Your task to perform on an android device: Open Google Chrome and open the bookmarks view Image 0: 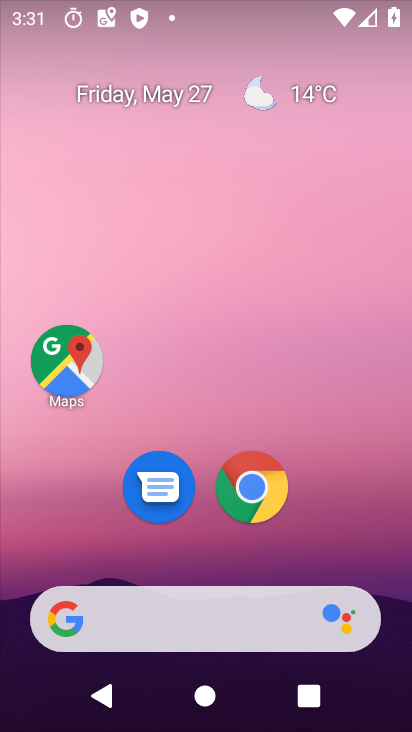
Step 0: click (255, 491)
Your task to perform on an android device: Open Google Chrome and open the bookmarks view Image 1: 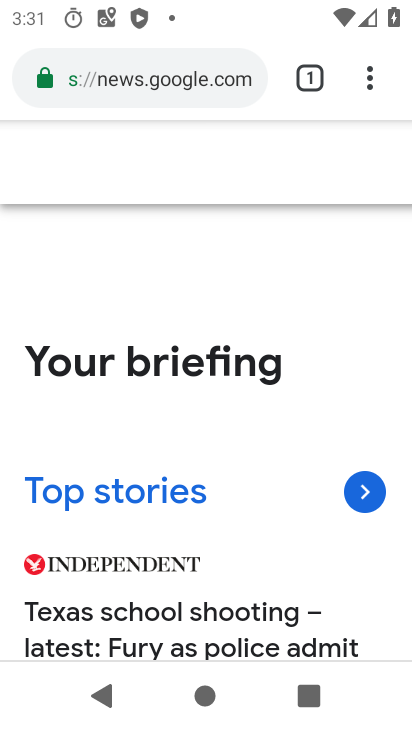
Step 1: task complete